Your task to perform on an android device: toggle wifi Image 0: 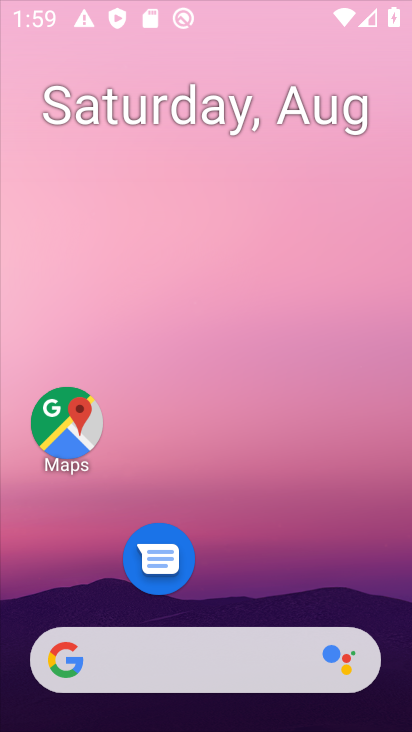
Step 0: click (223, 111)
Your task to perform on an android device: toggle wifi Image 1: 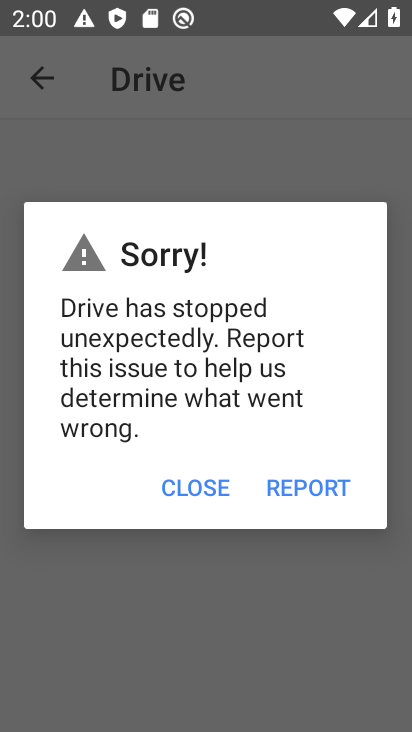
Step 1: press back button
Your task to perform on an android device: toggle wifi Image 2: 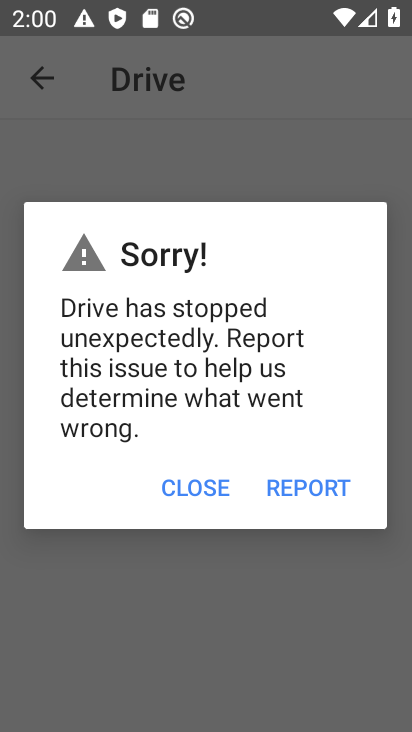
Step 2: click (214, 480)
Your task to perform on an android device: toggle wifi Image 3: 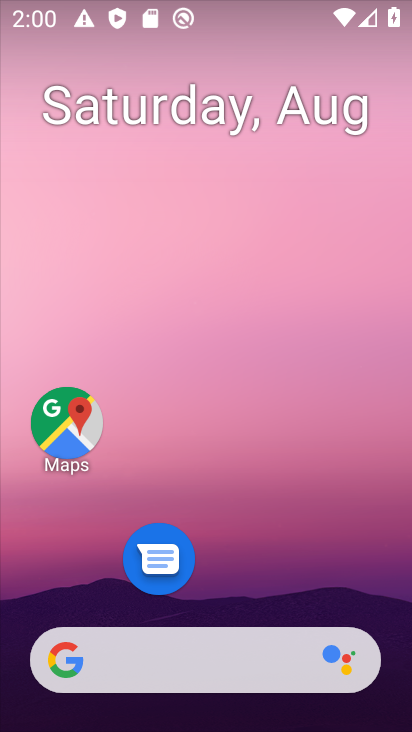
Step 3: drag from (216, 594) to (198, 88)
Your task to perform on an android device: toggle wifi Image 4: 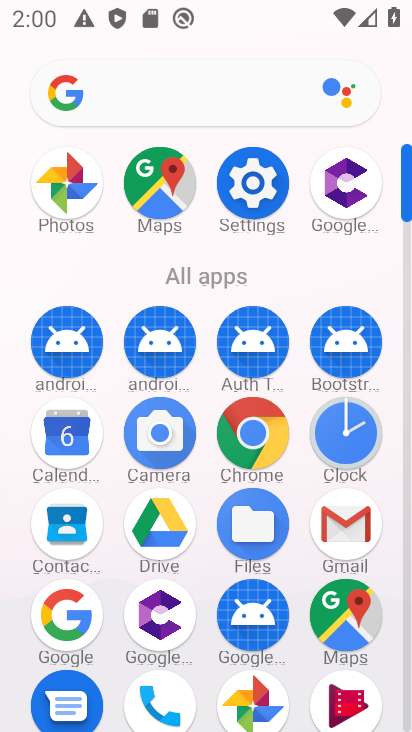
Step 4: click (262, 197)
Your task to perform on an android device: toggle wifi Image 5: 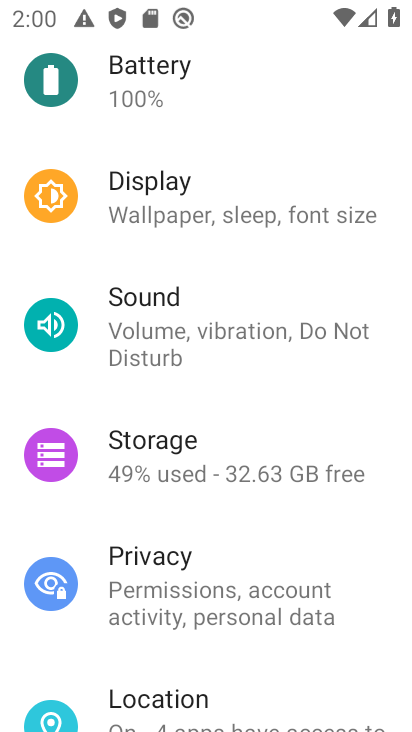
Step 5: drag from (147, 194) to (101, 524)
Your task to perform on an android device: toggle wifi Image 6: 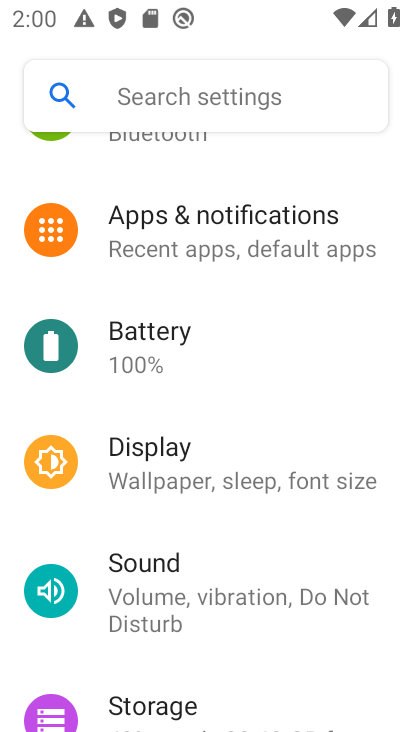
Step 6: drag from (166, 249) to (169, 613)
Your task to perform on an android device: toggle wifi Image 7: 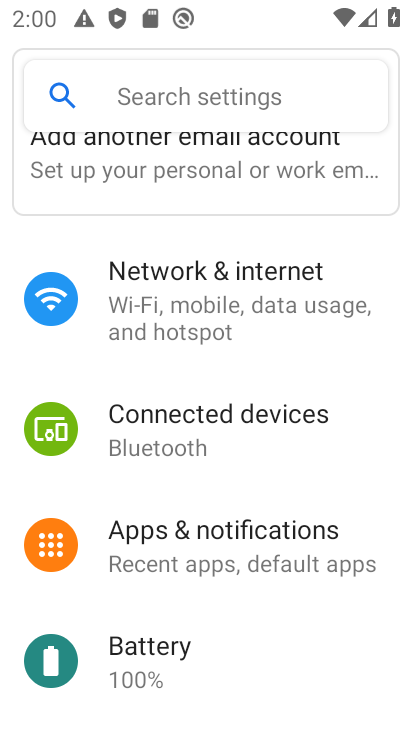
Step 7: click (158, 308)
Your task to perform on an android device: toggle wifi Image 8: 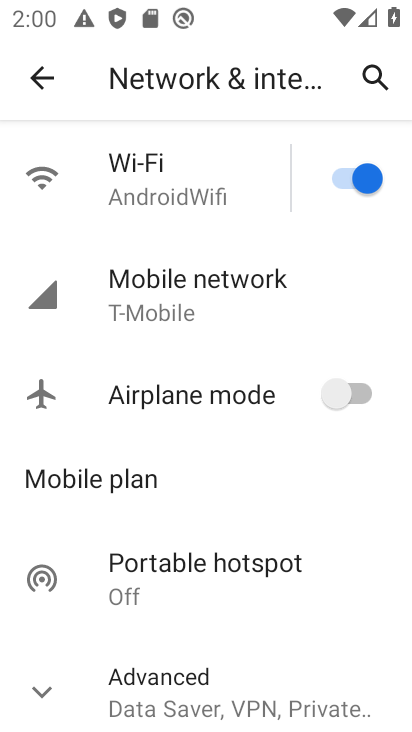
Step 8: click (356, 174)
Your task to perform on an android device: toggle wifi Image 9: 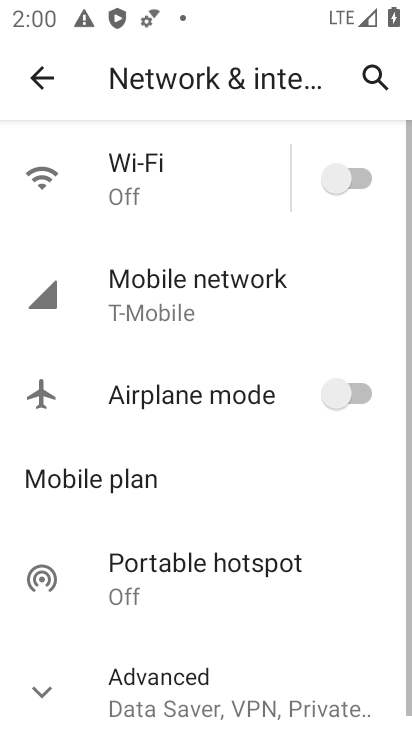
Step 9: task complete